Your task to perform on an android device: change the clock display to analog Image 0: 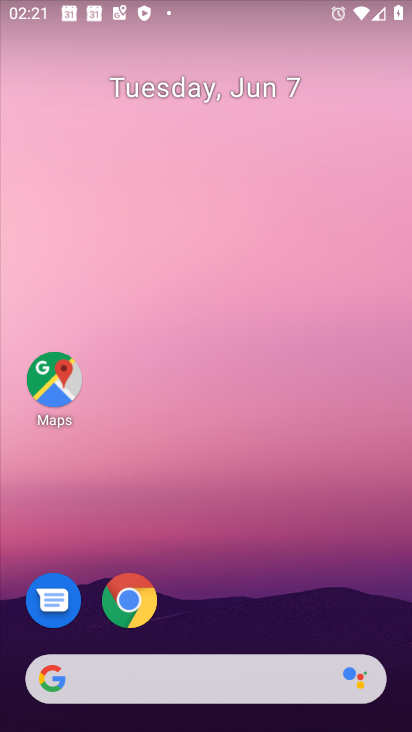
Step 0: drag from (237, 698) to (237, 199)
Your task to perform on an android device: change the clock display to analog Image 1: 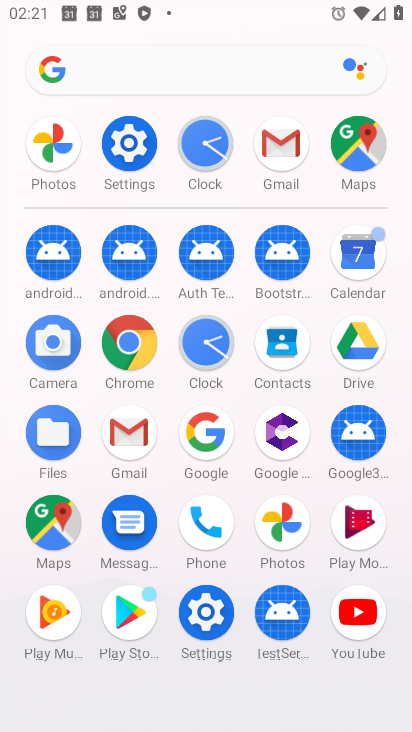
Step 1: click (202, 343)
Your task to perform on an android device: change the clock display to analog Image 2: 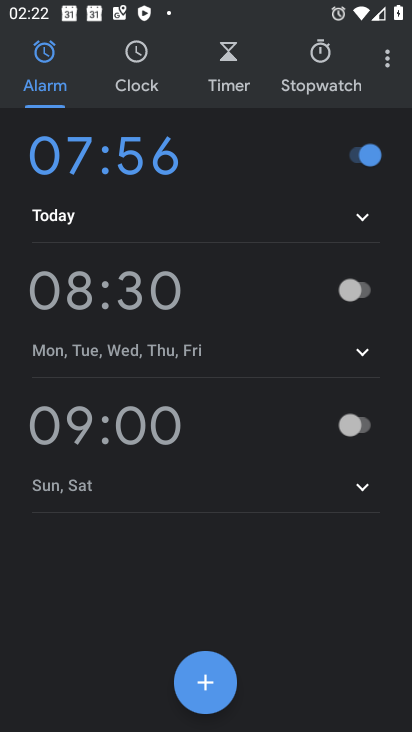
Step 2: click (389, 65)
Your task to perform on an android device: change the clock display to analog Image 3: 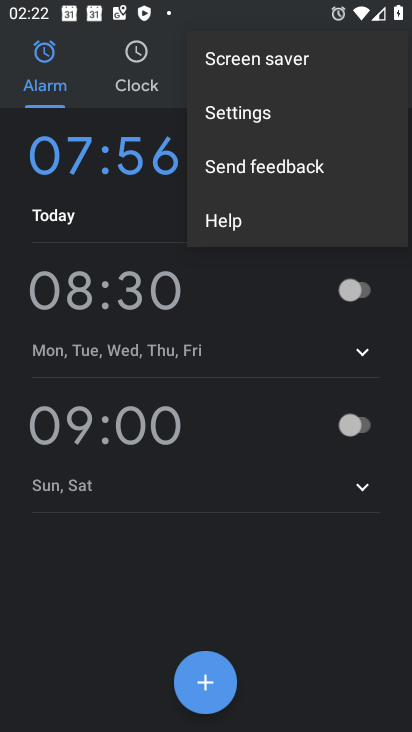
Step 3: click (241, 117)
Your task to perform on an android device: change the clock display to analog Image 4: 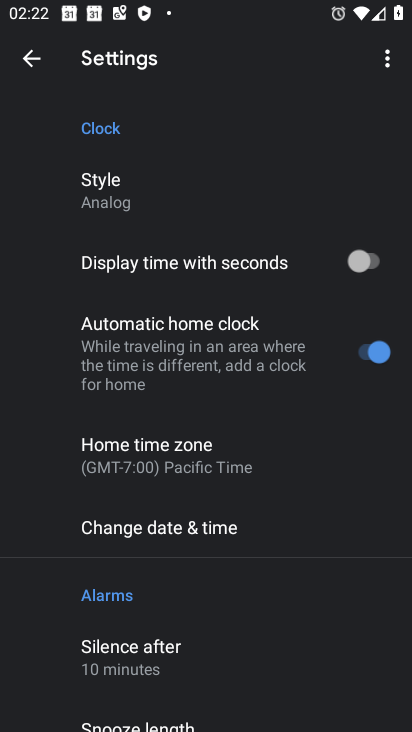
Step 4: task complete